Your task to perform on an android device: Do I have any events tomorrow? Image 0: 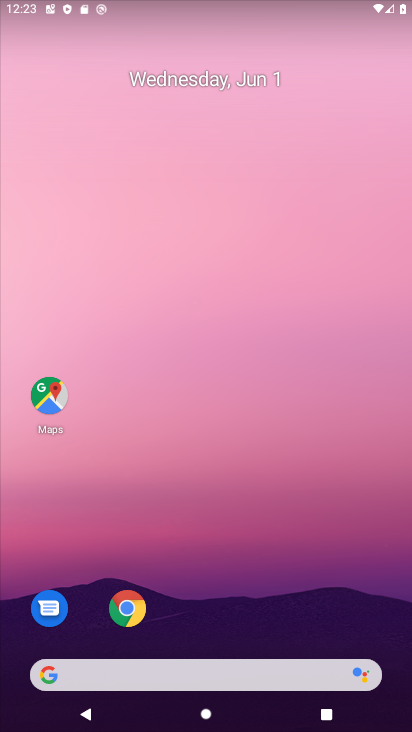
Step 0: drag from (233, 616) to (219, 0)
Your task to perform on an android device: Do I have any events tomorrow? Image 1: 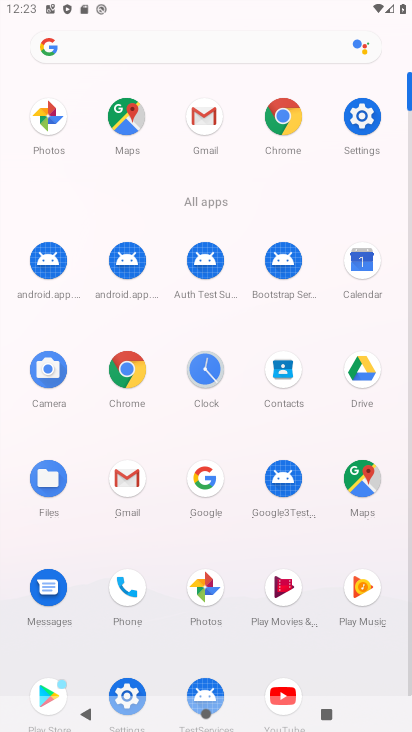
Step 1: click (363, 261)
Your task to perform on an android device: Do I have any events tomorrow? Image 2: 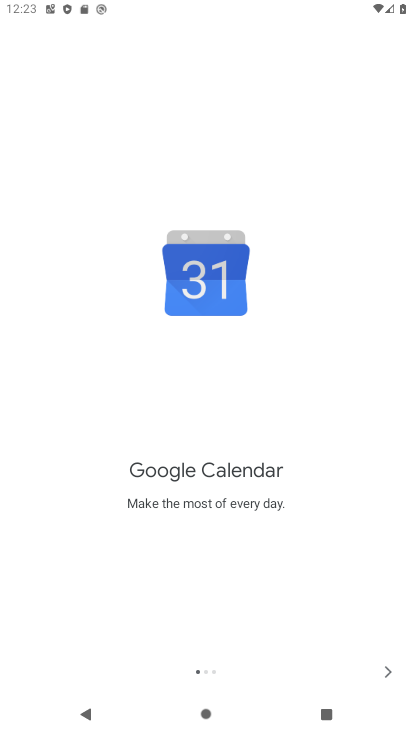
Step 2: click (385, 671)
Your task to perform on an android device: Do I have any events tomorrow? Image 3: 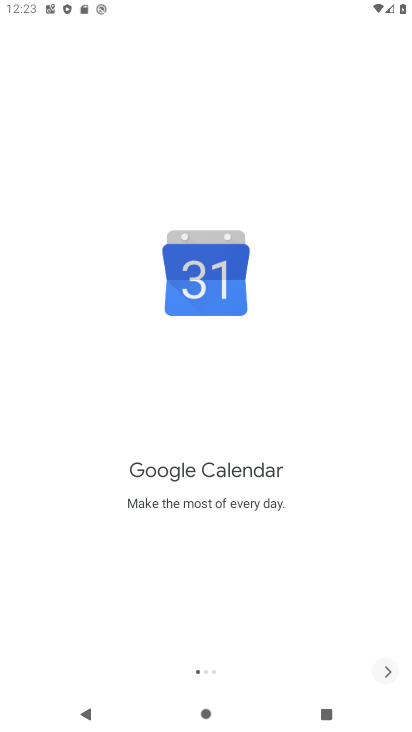
Step 3: click (385, 671)
Your task to perform on an android device: Do I have any events tomorrow? Image 4: 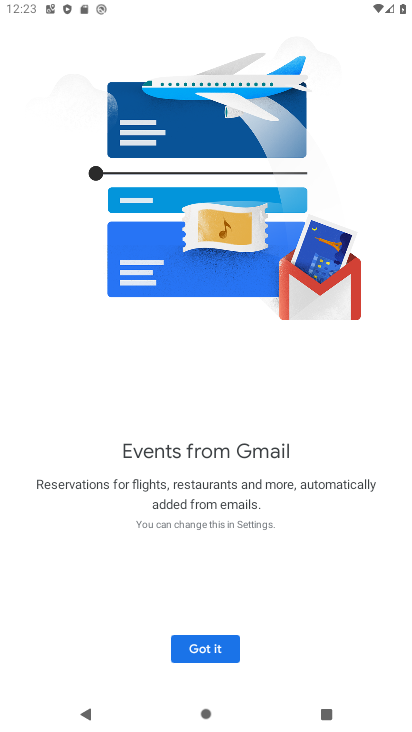
Step 4: click (385, 671)
Your task to perform on an android device: Do I have any events tomorrow? Image 5: 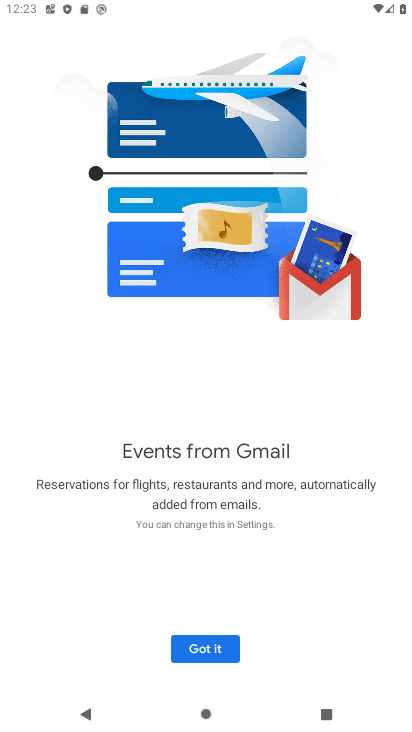
Step 5: click (219, 645)
Your task to perform on an android device: Do I have any events tomorrow? Image 6: 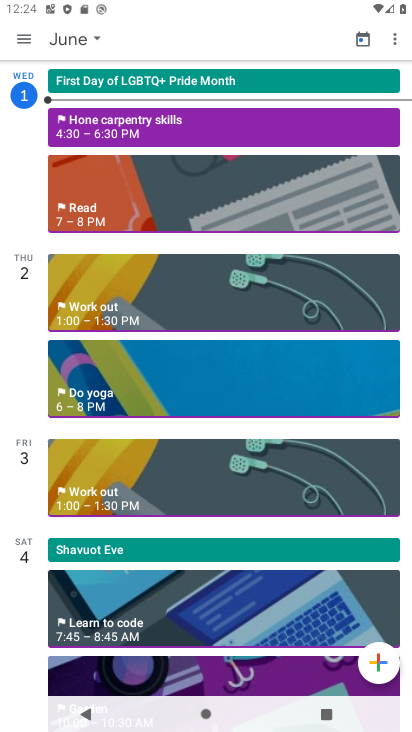
Step 6: task complete